Your task to perform on an android device: Search for Mexican restaurants on Maps Image 0: 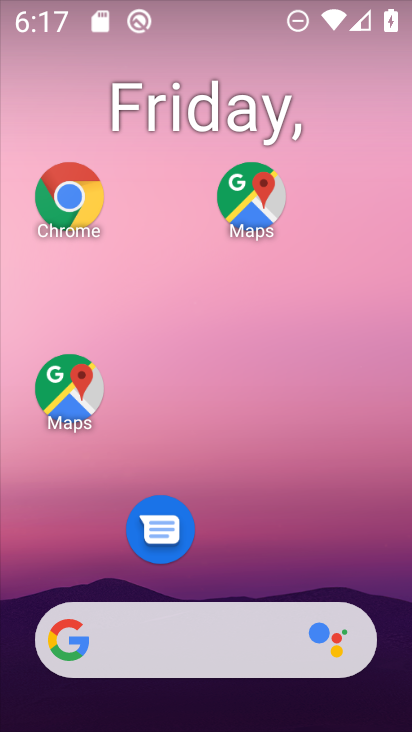
Step 0: click (69, 396)
Your task to perform on an android device: Search for Mexican restaurants on Maps Image 1: 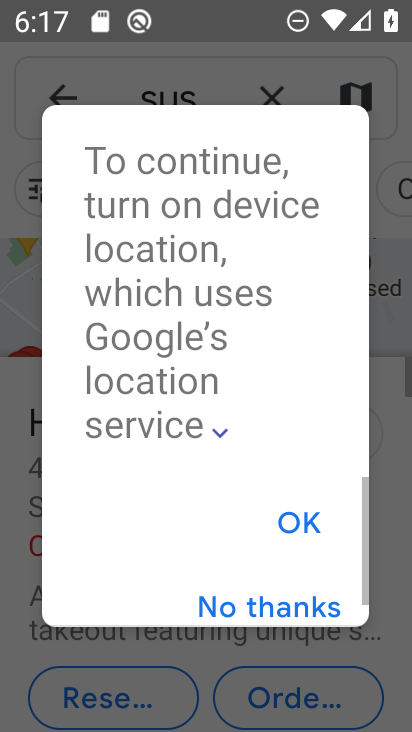
Step 1: click (265, 102)
Your task to perform on an android device: Search for Mexican restaurants on Maps Image 2: 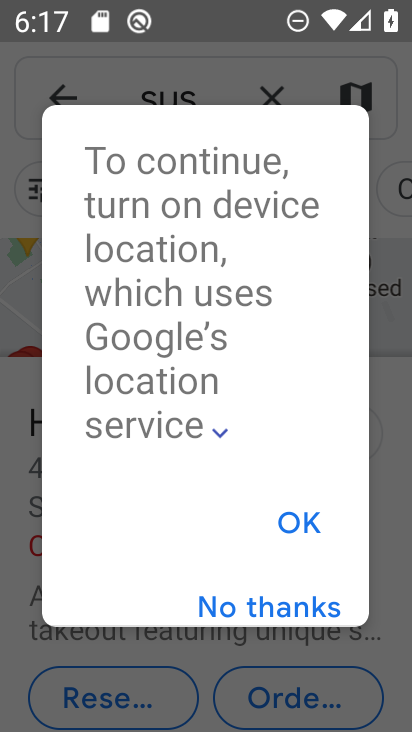
Step 2: click (282, 92)
Your task to perform on an android device: Search for Mexican restaurants on Maps Image 3: 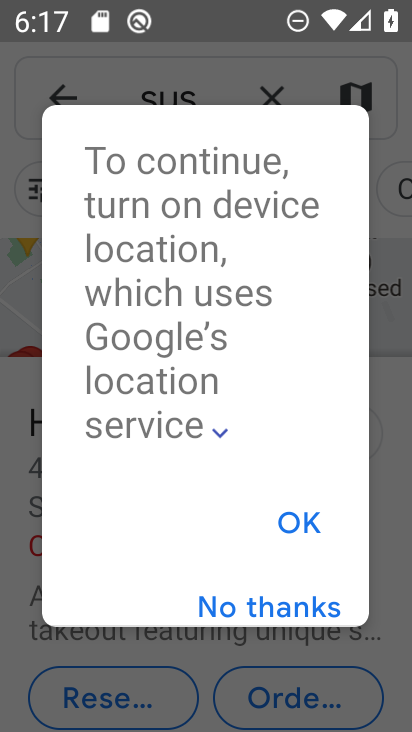
Step 3: click (290, 514)
Your task to perform on an android device: Search for Mexican restaurants on Maps Image 4: 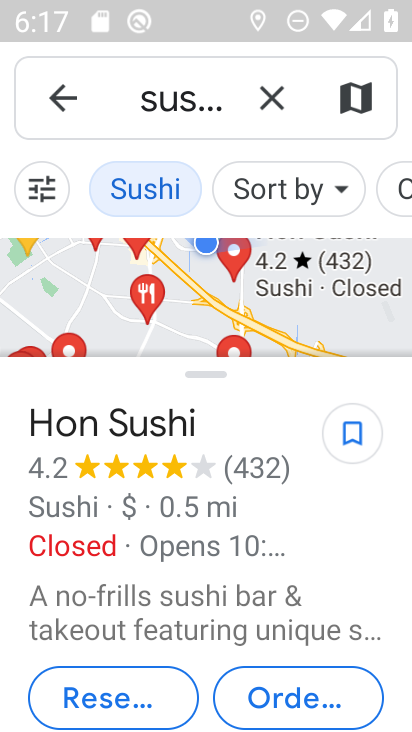
Step 4: click (271, 99)
Your task to perform on an android device: Search for Mexican restaurants on Maps Image 5: 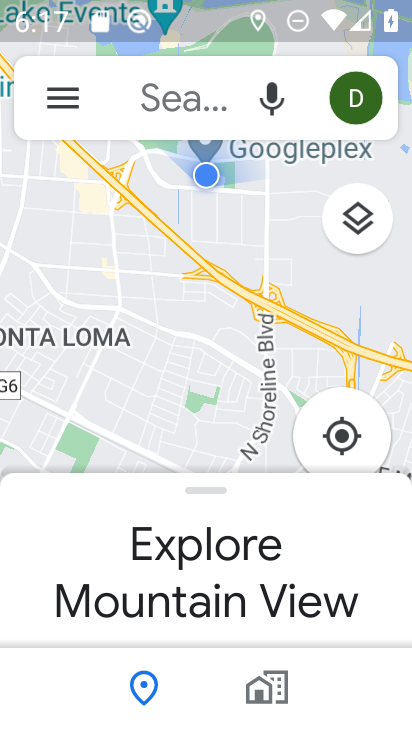
Step 5: click (156, 100)
Your task to perform on an android device: Search for Mexican restaurants on Maps Image 6: 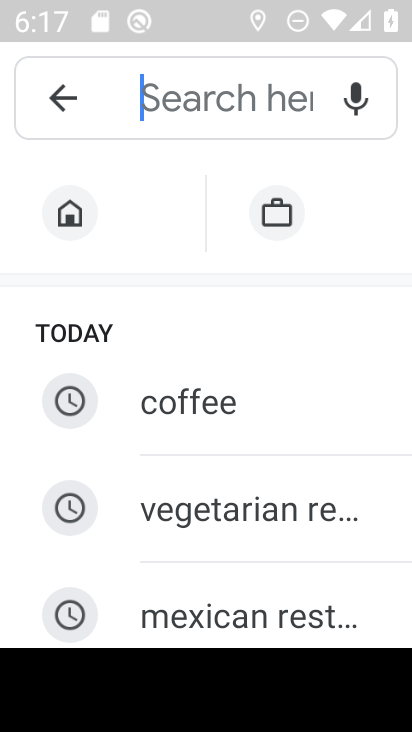
Step 6: click (250, 616)
Your task to perform on an android device: Search for Mexican restaurants on Maps Image 7: 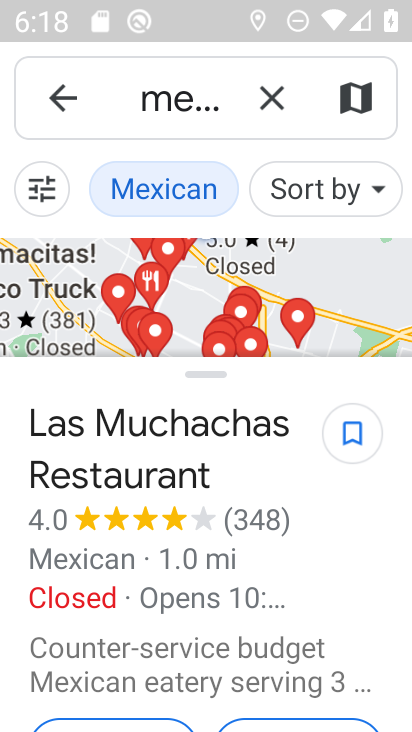
Step 7: task complete